Your task to perform on an android device: Open Yahoo.com Image 0: 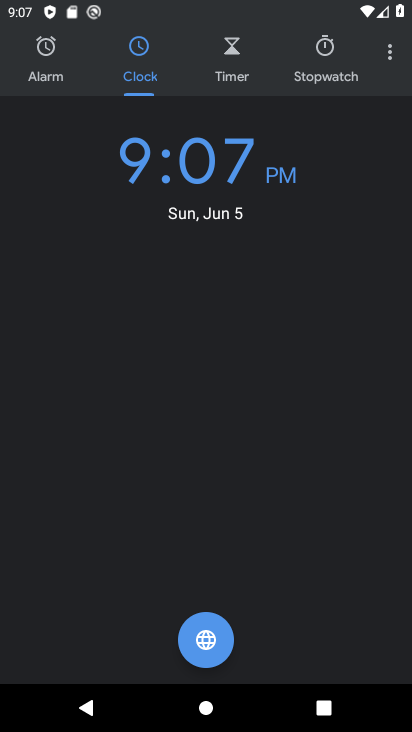
Step 0: press home button
Your task to perform on an android device: Open Yahoo.com Image 1: 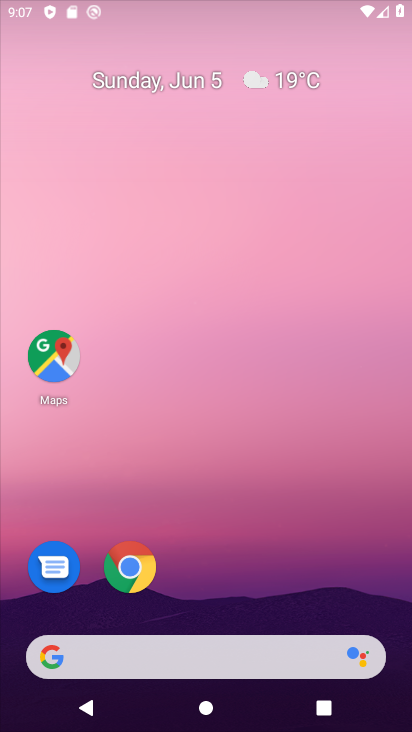
Step 1: drag from (154, 582) to (165, 0)
Your task to perform on an android device: Open Yahoo.com Image 2: 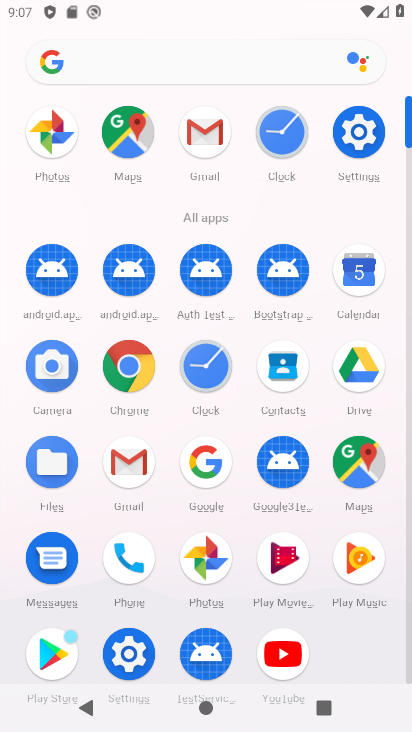
Step 2: click (125, 387)
Your task to perform on an android device: Open Yahoo.com Image 3: 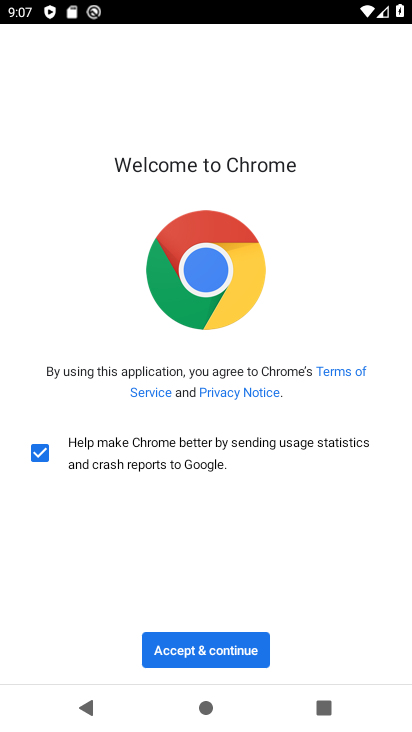
Step 3: click (220, 639)
Your task to perform on an android device: Open Yahoo.com Image 4: 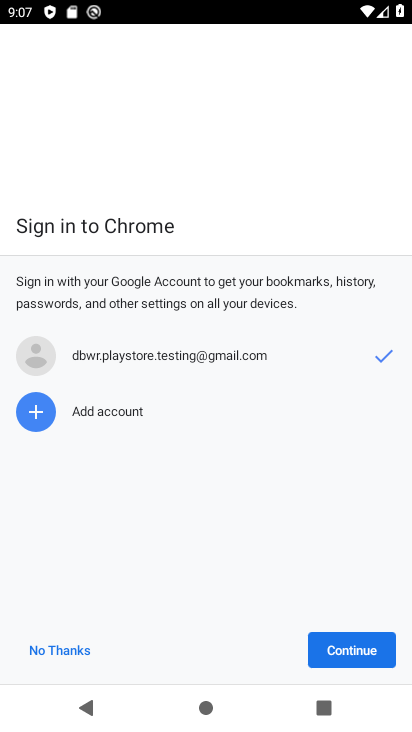
Step 4: click (56, 645)
Your task to perform on an android device: Open Yahoo.com Image 5: 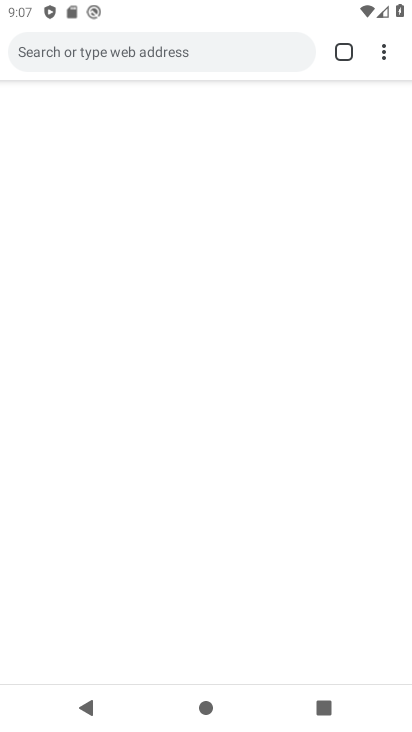
Step 5: click (230, 56)
Your task to perform on an android device: Open Yahoo.com Image 6: 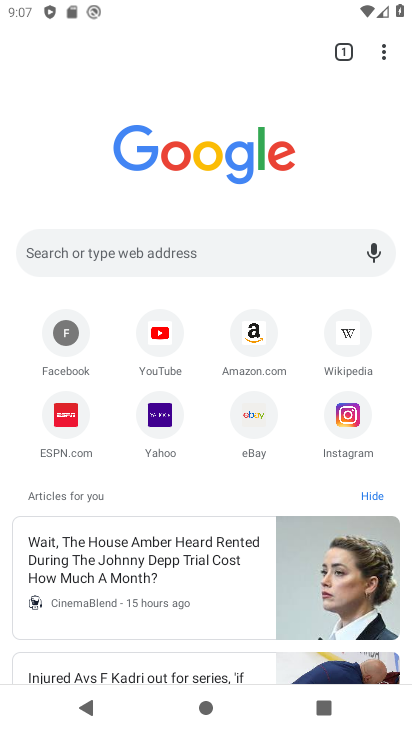
Step 6: click (153, 414)
Your task to perform on an android device: Open Yahoo.com Image 7: 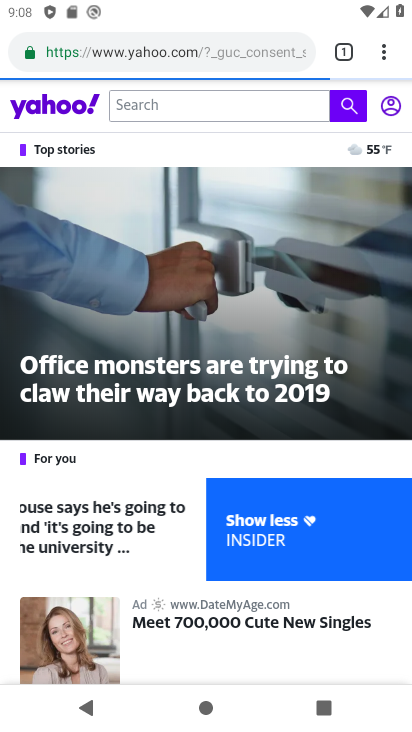
Step 7: task complete